Your task to perform on an android device: see tabs open on other devices in the chrome app Image 0: 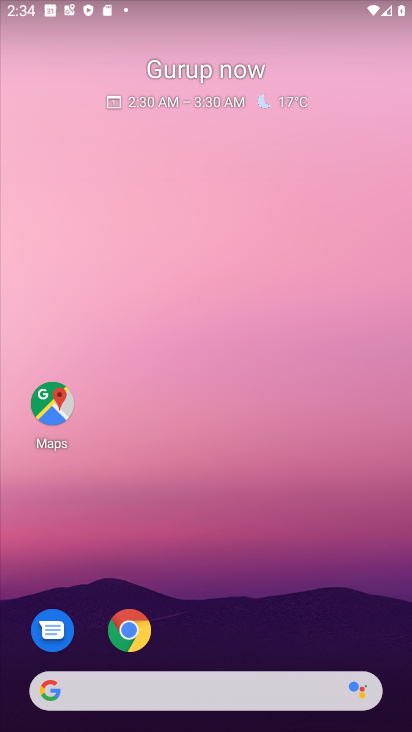
Step 0: click (143, 631)
Your task to perform on an android device: see tabs open on other devices in the chrome app Image 1: 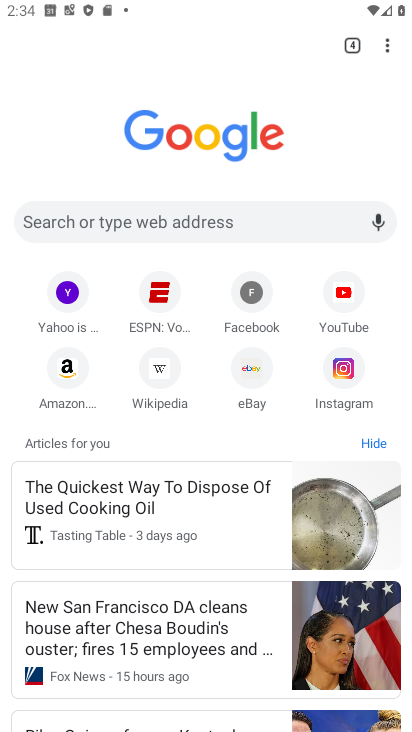
Step 1: click (383, 45)
Your task to perform on an android device: see tabs open on other devices in the chrome app Image 2: 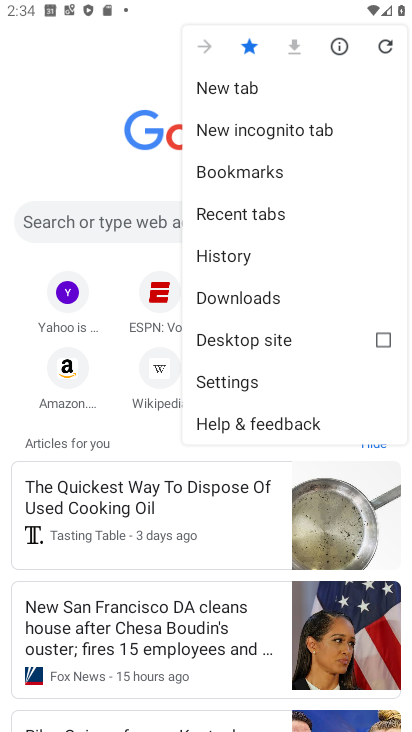
Step 2: click (251, 215)
Your task to perform on an android device: see tabs open on other devices in the chrome app Image 3: 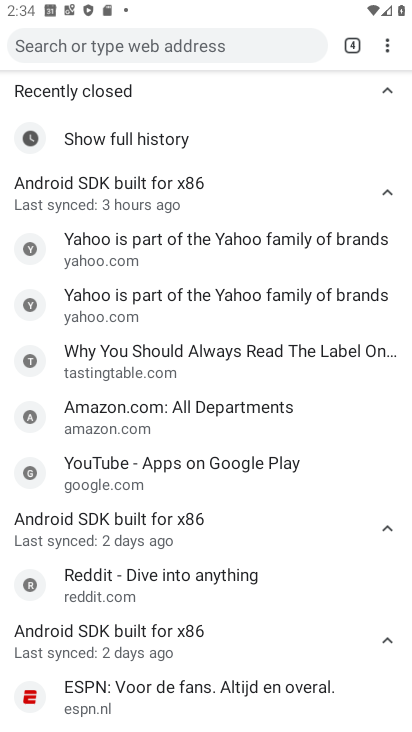
Step 3: task complete